Your task to perform on an android device: change the clock display to analog Image 0: 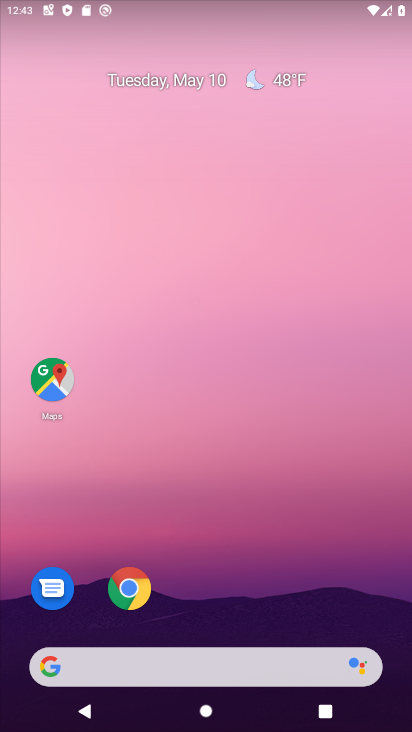
Step 0: drag from (228, 589) to (253, 335)
Your task to perform on an android device: change the clock display to analog Image 1: 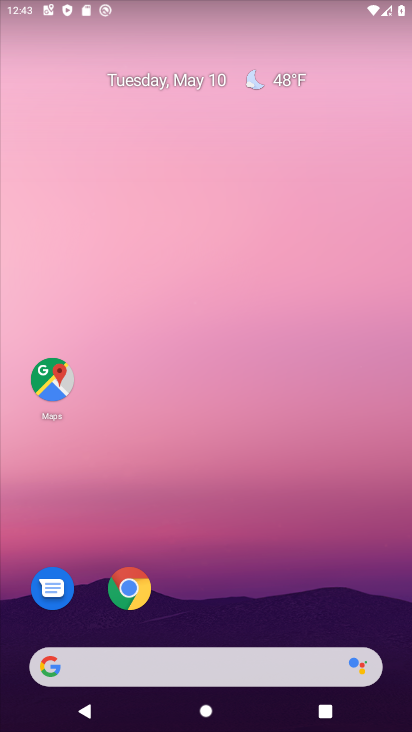
Step 1: drag from (258, 568) to (270, 125)
Your task to perform on an android device: change the clock display to analog Image 2: 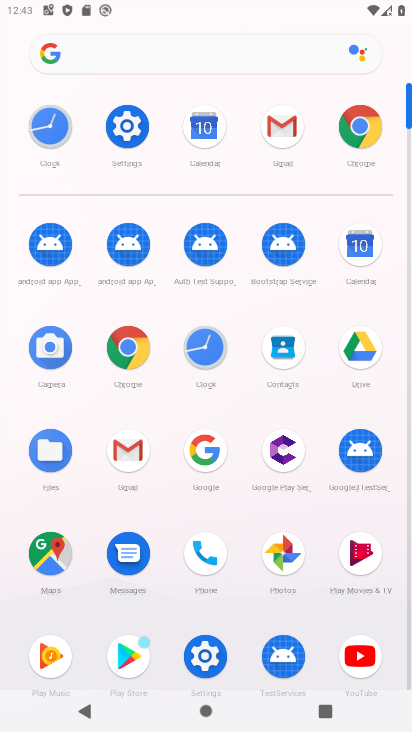
Step 2: click (215, 348)
Your task to perform on an android device: change the clock display to analog Image 3: 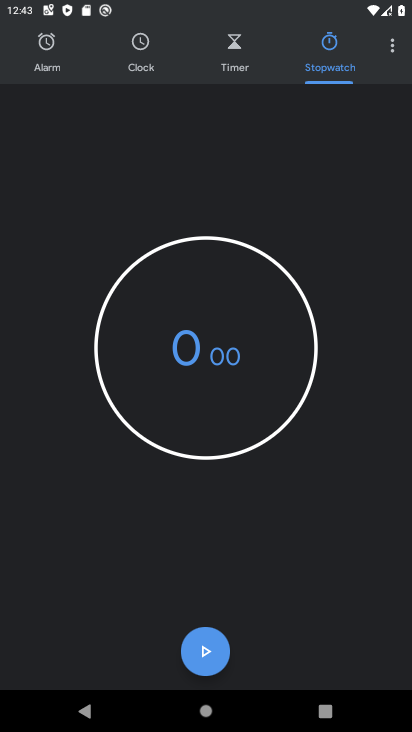
Step 3: click (384, 37)
Your task to perform on an android device: change the clock display to analog Image 4: 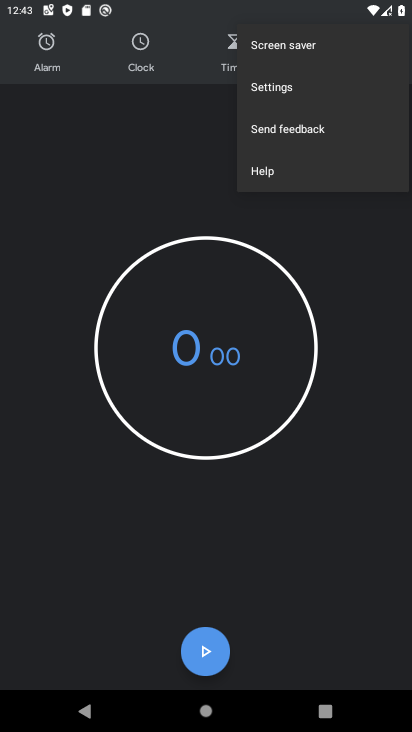
Step 4: click (389, 51)
Your task to perform on an android device: change the clock display to analog Image 5: 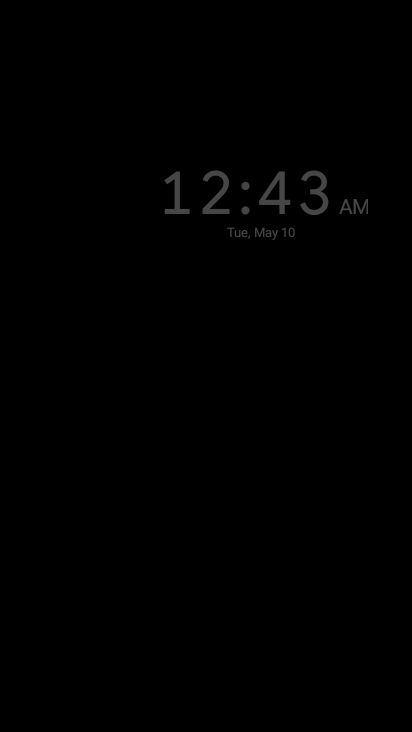
Step 5: click (320, 75)
Your task to perform on an android device: change the clock display to analog Image 6: 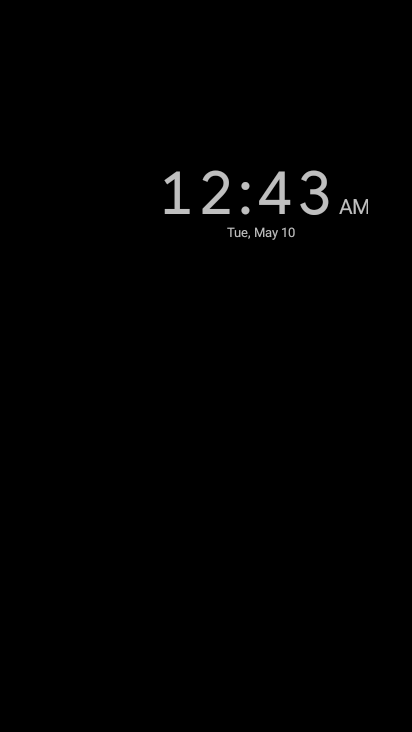
Step 6: press back button
Your task to perform on an android device: change the clock display to analog Image 7: 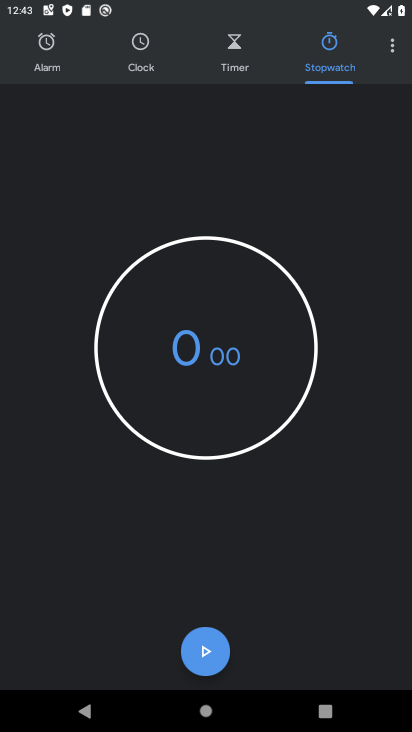
Step 7: click (379, 45)
Your task to perform on an android device: change the clock display to analog Image 8: 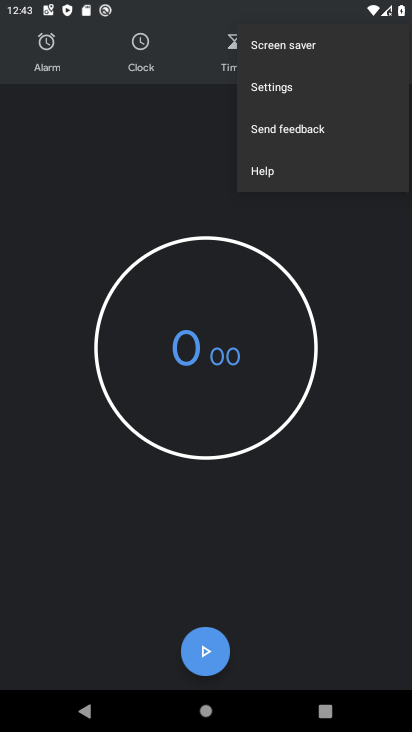
Step 8: click (309, 91)
Your task to perform on an android device: change the clock display to analog Image 9: 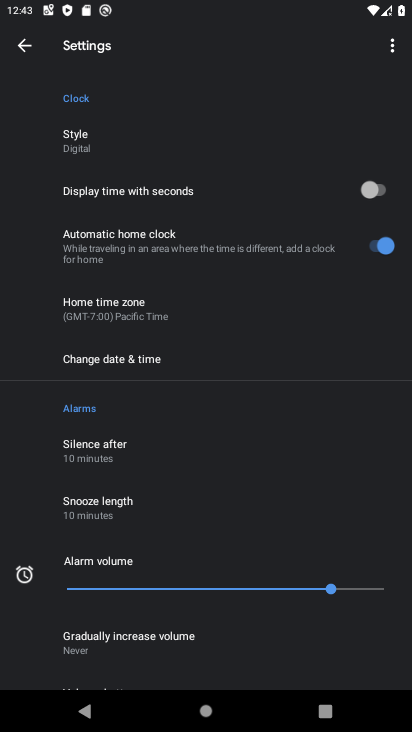
Step 9: click (86, 144)
Your task to perform on an android device: change the clock display to analog Image 10: 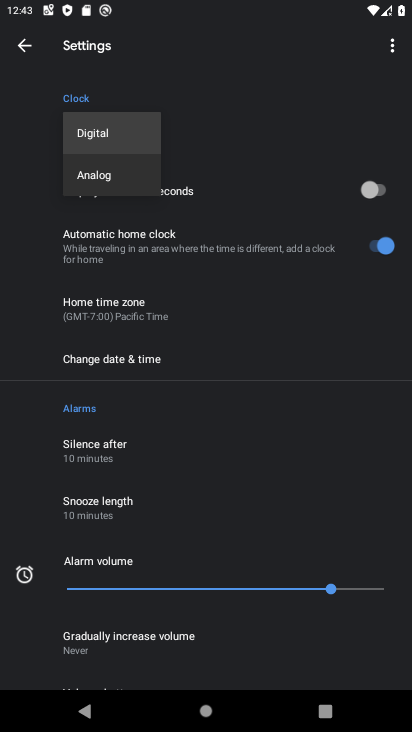
Step 10: click (106, 171)
Your task to perform on an android device: change the clock display to analog Image 11: 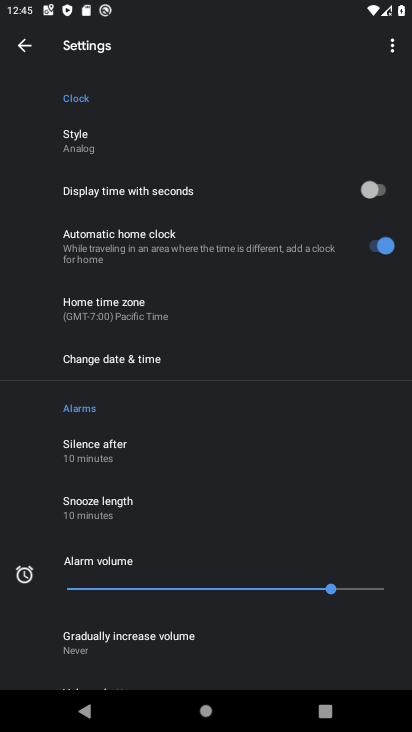
Step 11: task complete